Your task to perform on an android device: Go to network settings Image 0: 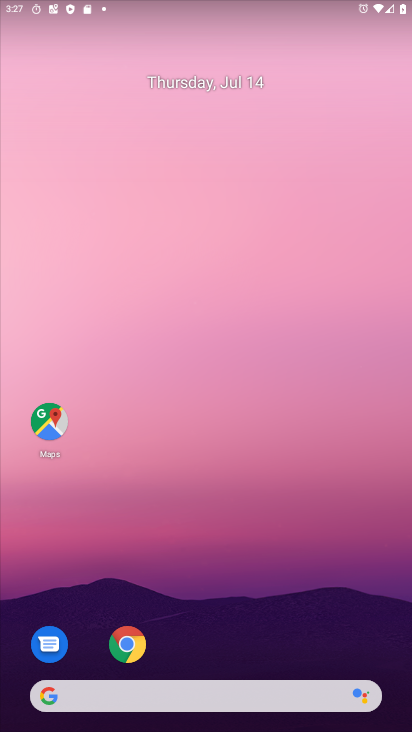
Step 0: click (264, 97)
Your task to perform on an android device: Go to network settings Image 1: 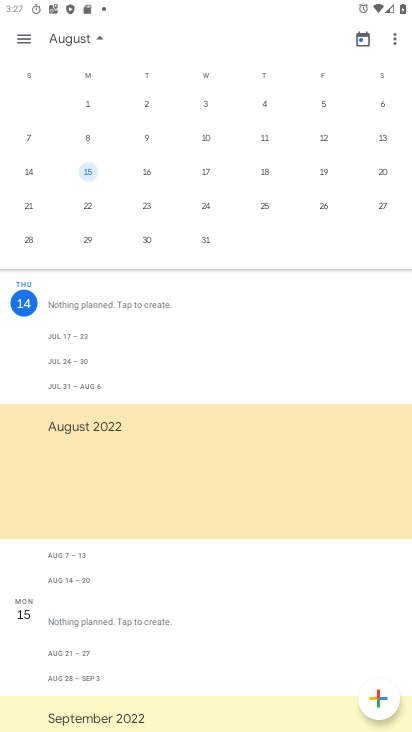
Step 1: press home button
Your task to perform on an android device: Go to network settings Image 2: 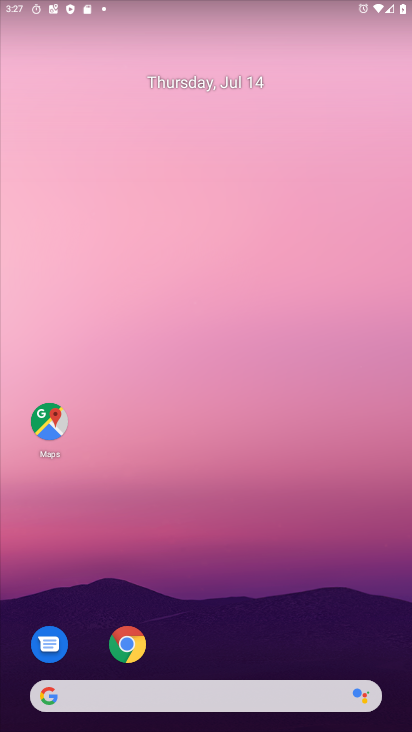
Step 2: drag from (65, 652) to (282, 12)
Your task to perform on an android device: Go to network settings Image 3: 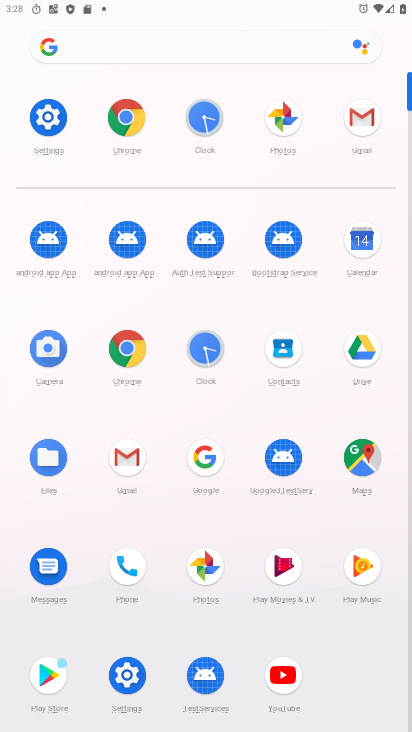
Step 3: click (125, 686)
Your task to perform on an android device: Go to network settings Image 4: 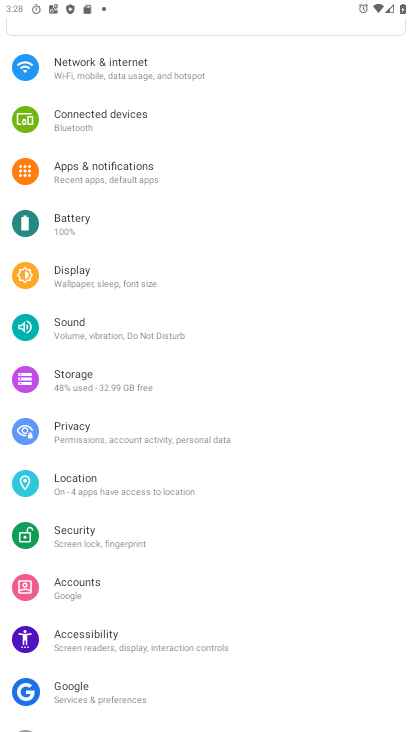
Step 4: click (139, 75)
Your task to perform on an android device: Go to network settings Image 5: 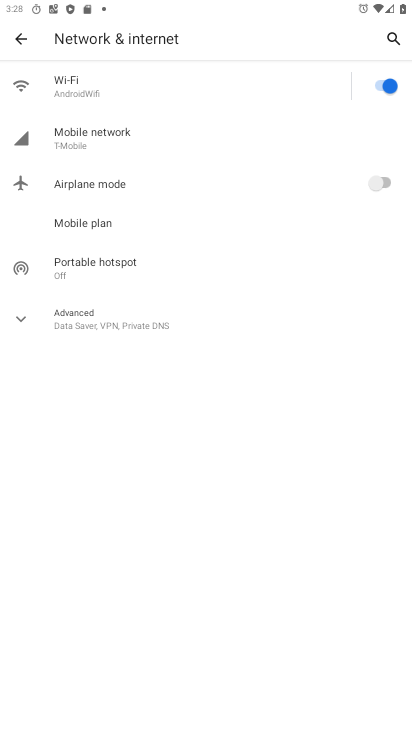
Step 5: task complete